Your task to perform on an android device: Add "macbook air" to the cart on costco, then select checkout. Image 0: 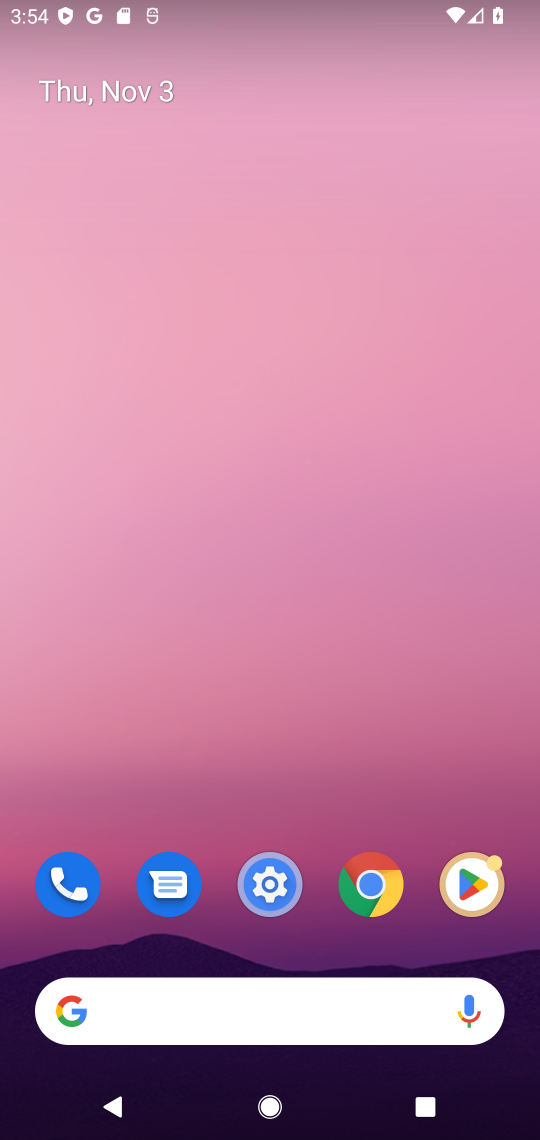
Step 0: press home button
Your task to perform on an android device: Add "macbook air" to the cart on costco, then select checkout. Image 1: 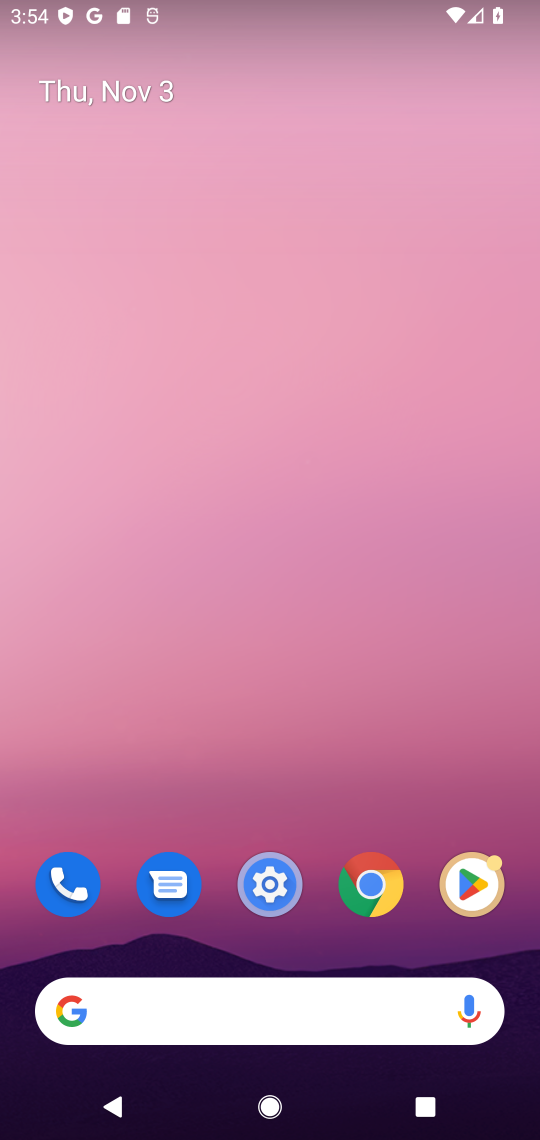
Step 1: click (116, 1002)
Your task to perform on an android device: Add "macbook air" to the cart on costco, then select checkout. Image 2: 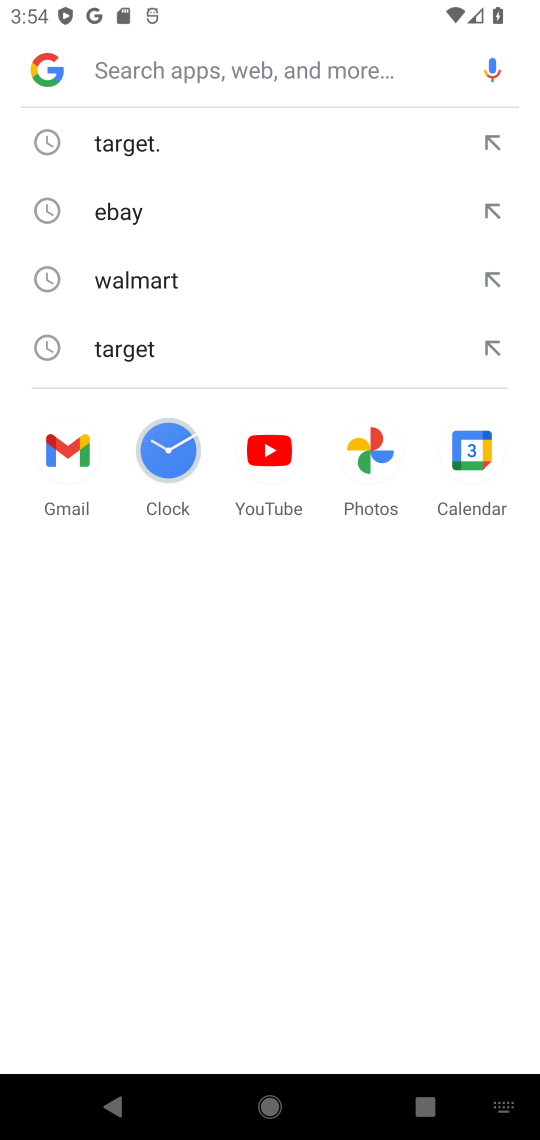
Step 2: type " costco"
Your task to perform on an android device: Add "macbook air" to the cart on costco, then select checkout. Image 3: 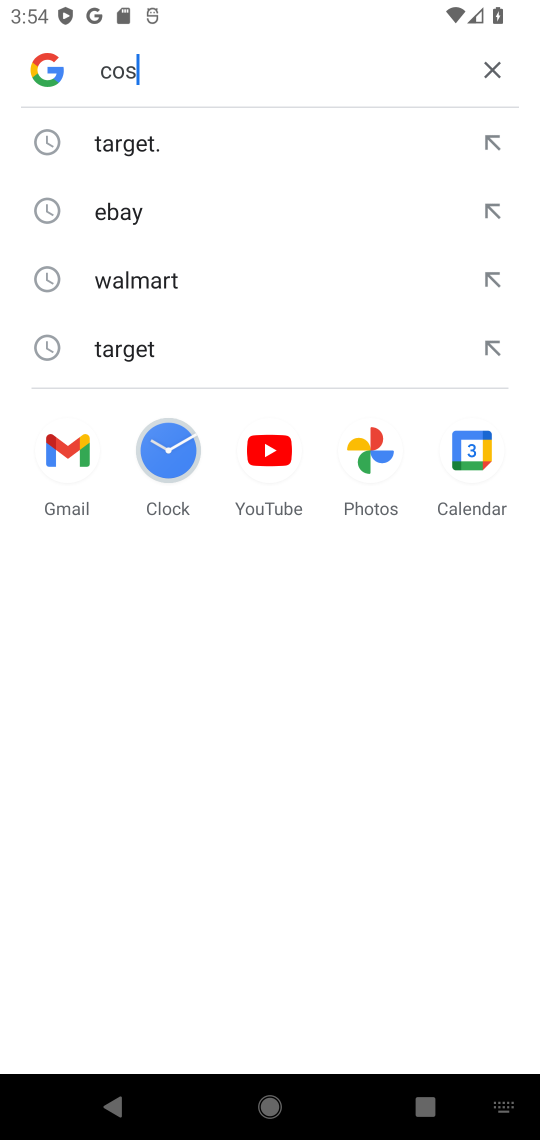
Step 3: press enter
Your task to perform on an android device: Add "macbook air" to the cart on costco, then select checkout. Image 4: 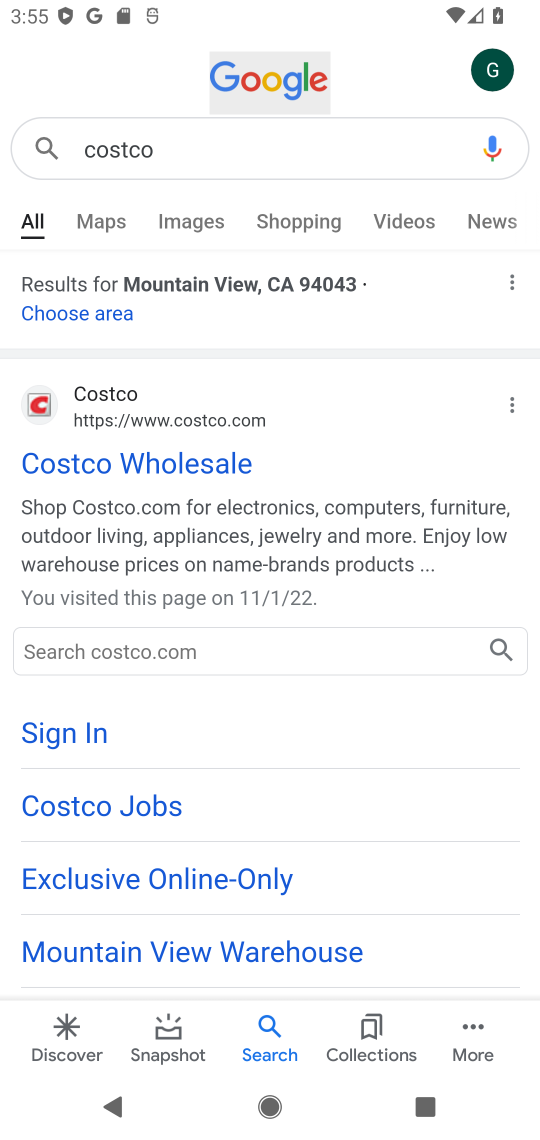
Step 4: click (152, 462)
Your task to perform on an android device: Add "macbook air" to the cart on costco, then select checkout. Image 5: 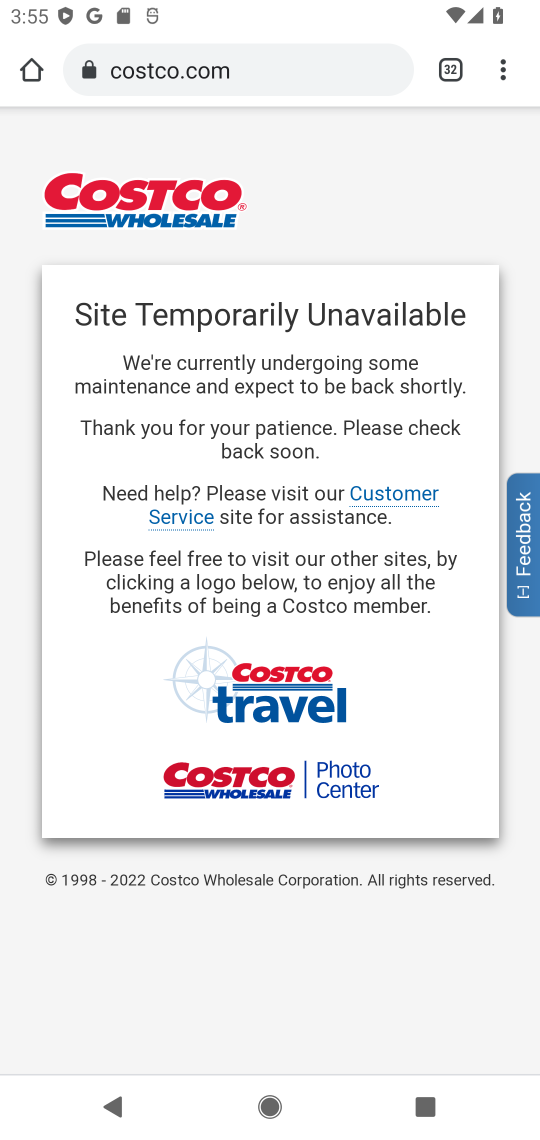
Step 5: task complete